Your task to perform on an android device: turn off wifi Image 0: 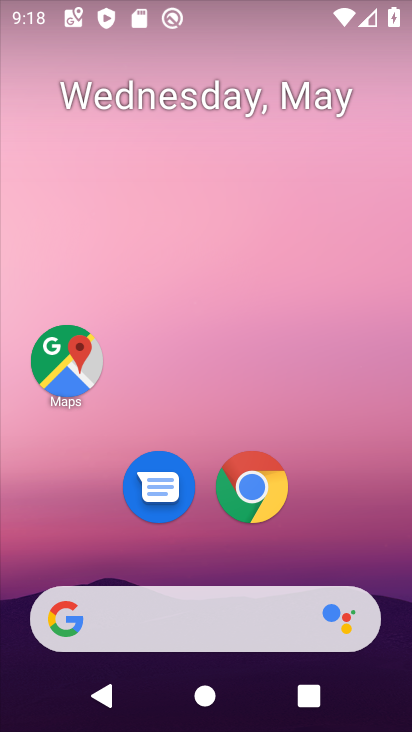
Step 0: drag from (343, 536) to (229, 159)
Your task to perform on an android device: turn off wifi Image 1: 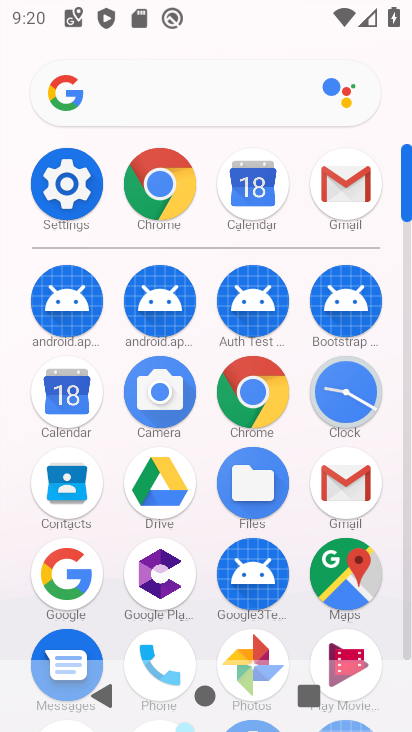
Step 1: click (55, 177)
Your task to perform on an android device: turn off wifi Image 2: 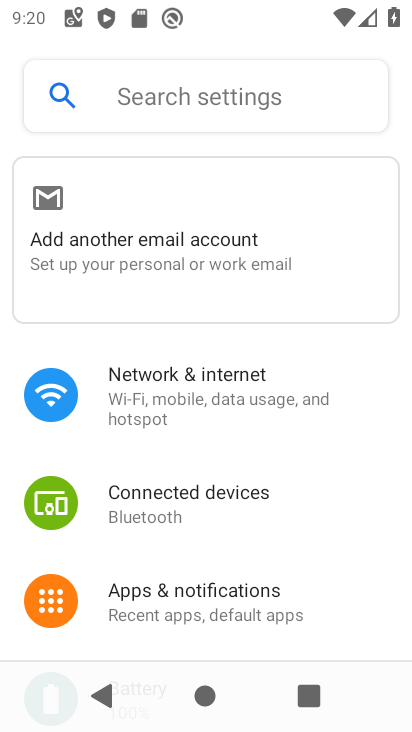
Step 2: click (180, 375)
Your task to perform on an android device: turn off wifi Image 3: 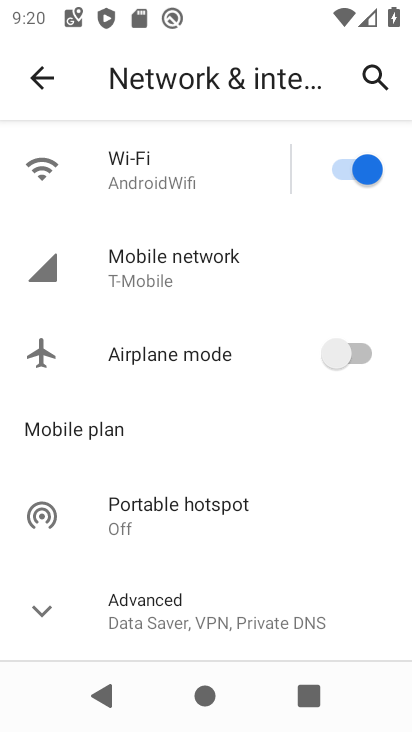
Step 3: click (336, 177)
Your task to perform on an android device: turn off wifi Image 4: 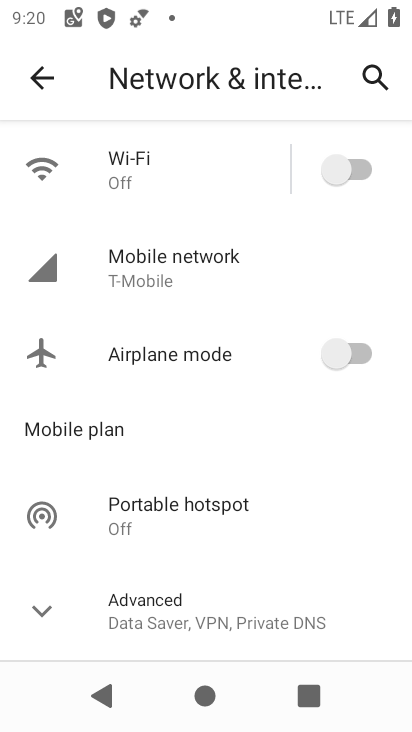
Step 4: task complete